Your task to perform on an android device: Open settings Image 0: 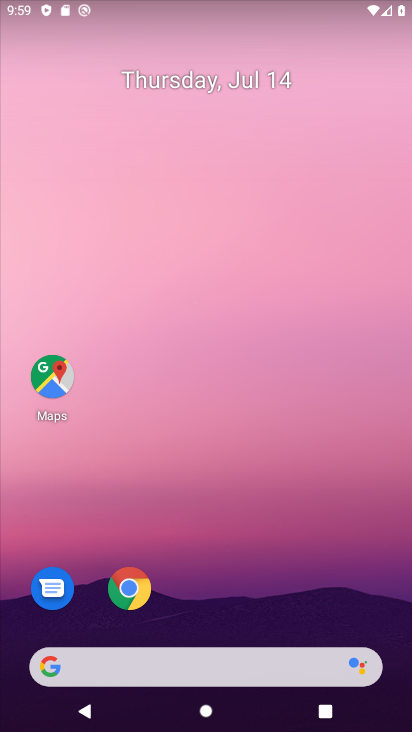
Step 0: drag from (258, 602) to (200, 35)
Your task to perform on an android device: Open settings Image 1: 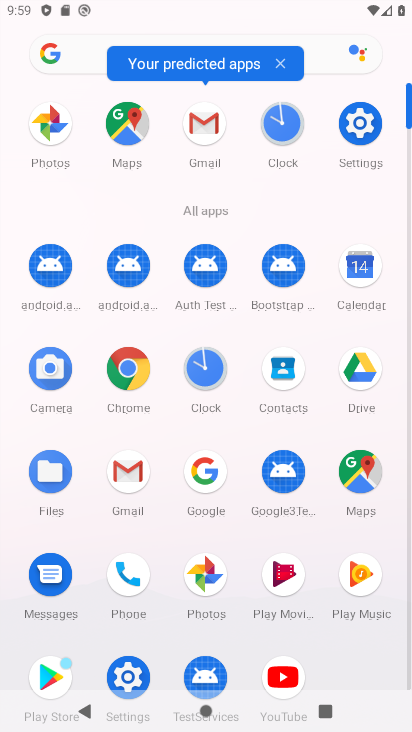
Step 1: click (358, 140)
Your task to perform on an android device: Open settings Image 2: 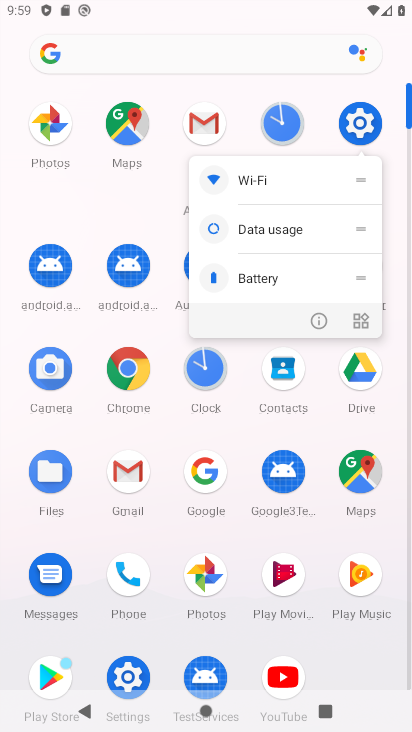
Step 2: click (360, 126)
Your task to perform on an android device: Open settings Image 3: 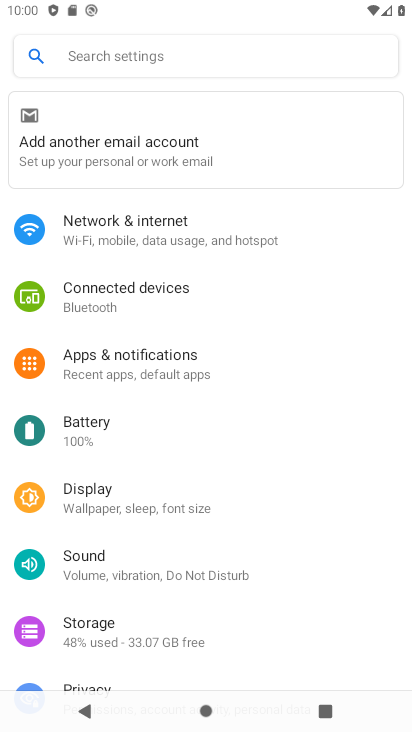
Step 3: task complete